Your task to perform on an android device: set an alarm Image 0: 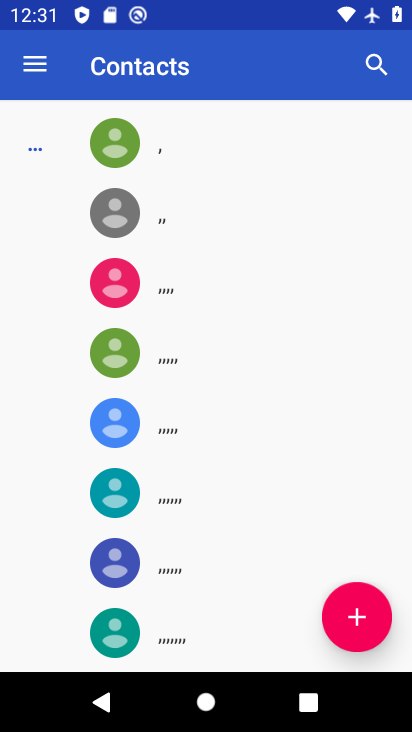
Step 0: press home button
Your task to perform on an android device: set an alarm Image 1: 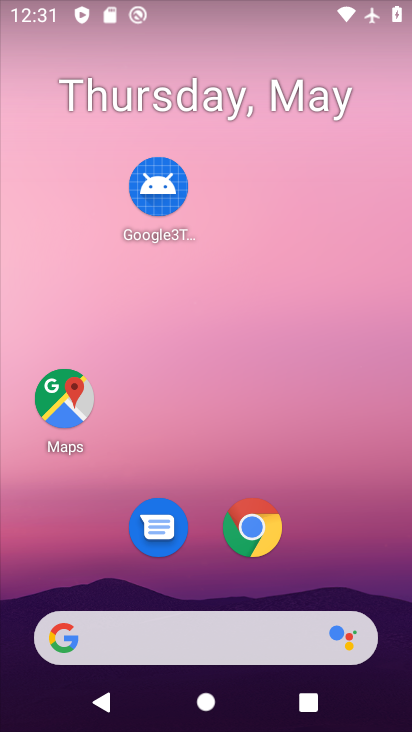
Step 1: drag from (205, 587) to (246, 125)
Your task to perform on an android device: set an alarm Image 2: 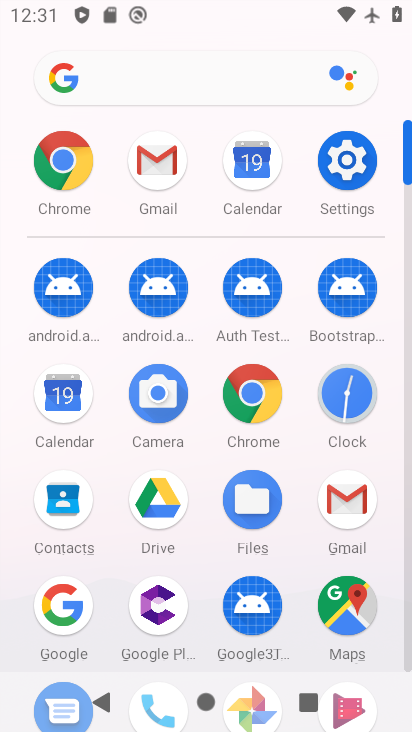
Step 2: click (348, 397)
Your task to perform on an android device: set an alarm Image 3: 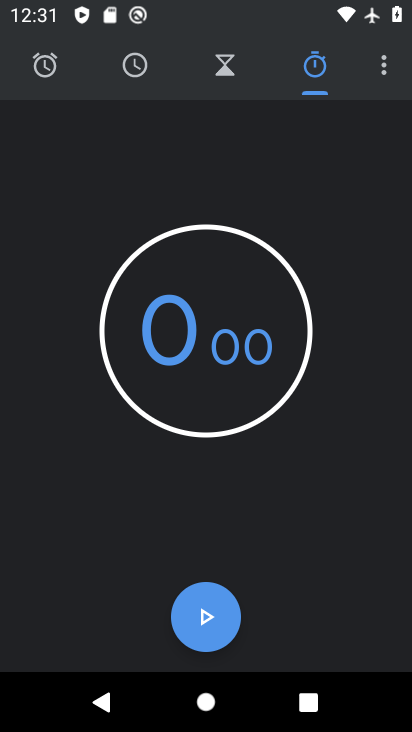
Step 3: click (54, 75)
Your task to perform on an android device: set an alarm Image 4: 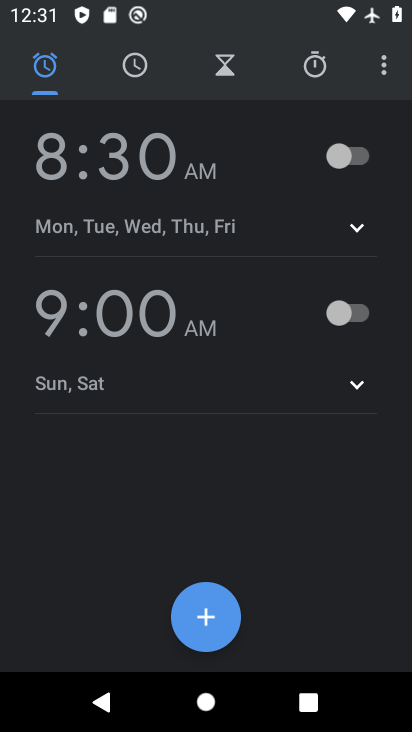
Step 4: click (341, 316)
Your task to perform on an android device: set an alarm Image 5: 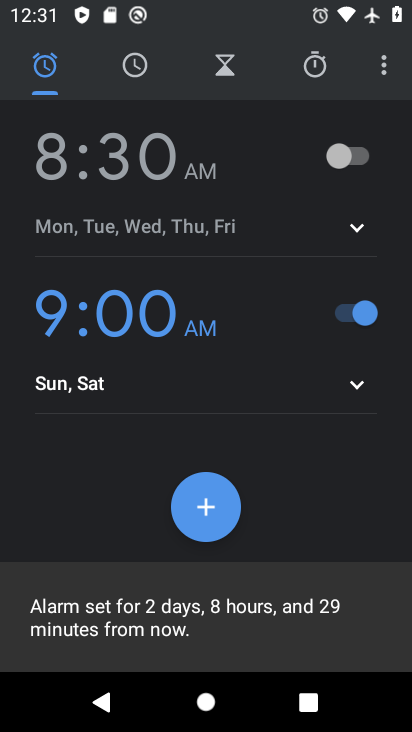
Step 5: task complete